Your task to perform on an android device: Play the last video I watched on Youtube Image 0: 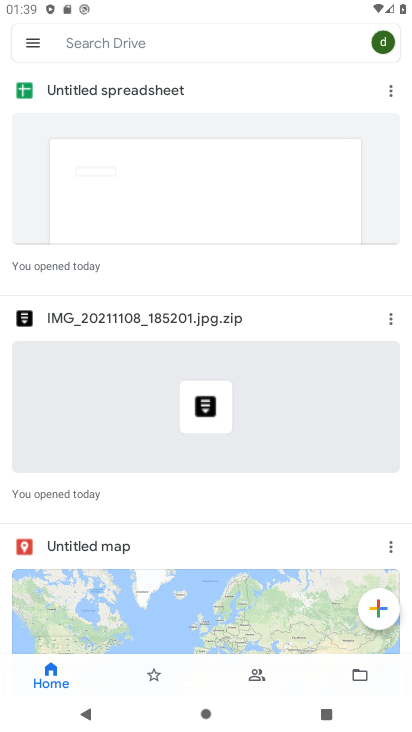
Step 0: press home button
Your task to perform on an android device: Play the last video I watched on Youtube Image 1: 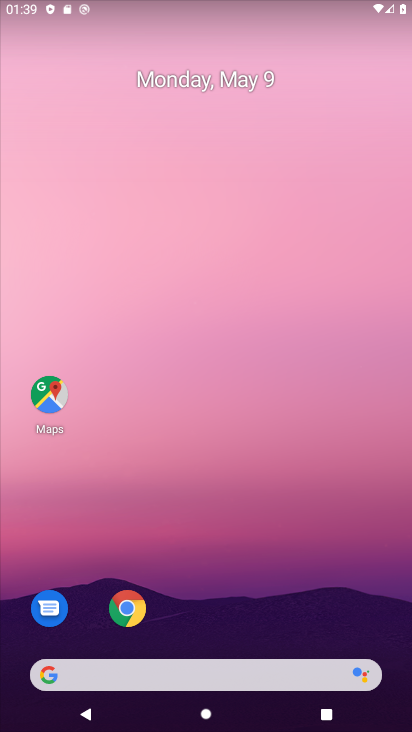
Step 1: drag from (238, 579) to (239, 26)
Your task to perform on an android device: Play the last video I watched on Youtube Image 2: 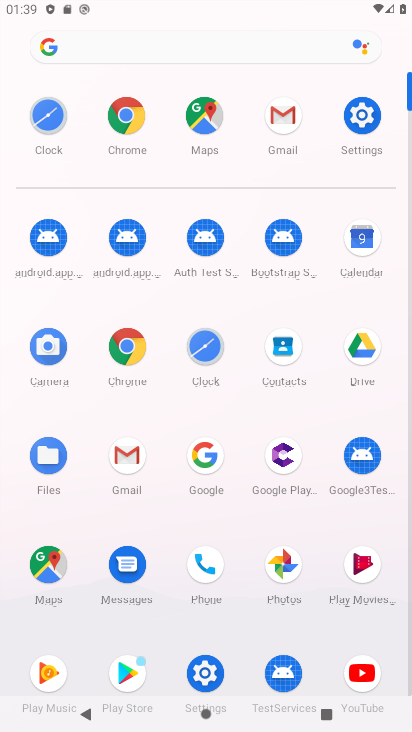
Step 2: click (345, 657)
Your task to perform on an android device: Play the last video I watched on Youtube Image 3: 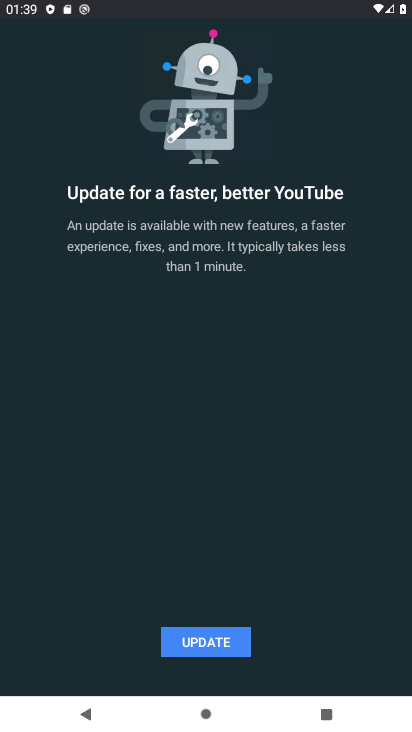
Step 3: click (170, 644)
Your task to perform on an android device: Play the last video I watched on Youtube Image 4: 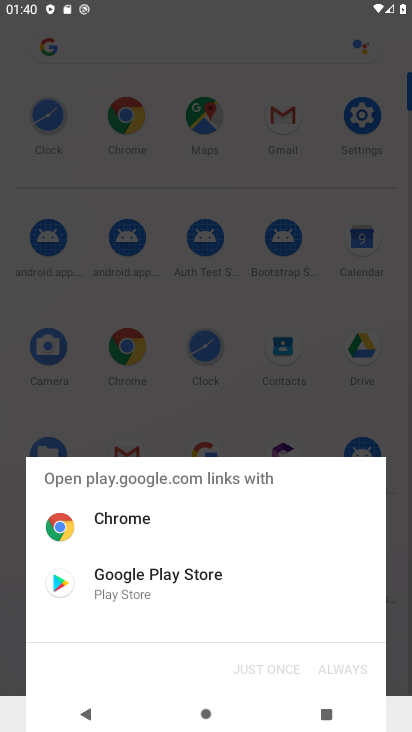
Step 4: click (219, 581)
Your task to perform on an android device: Play the last video I watched on Youtube Image 5: 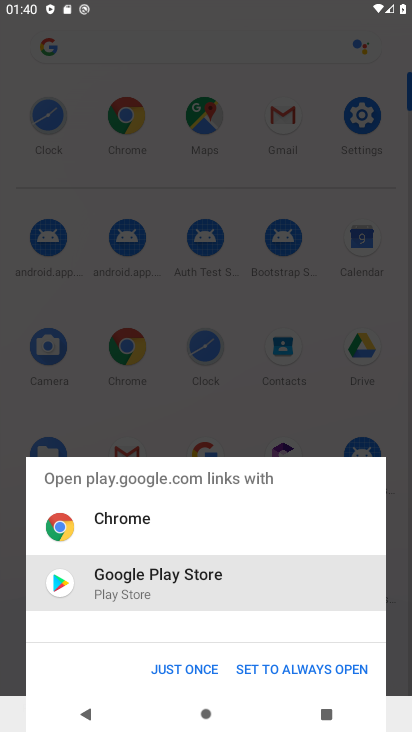
Step 5: click (207, 676)
Your task to perform on an android device: Play the last video I watched on Youtube Image 6: 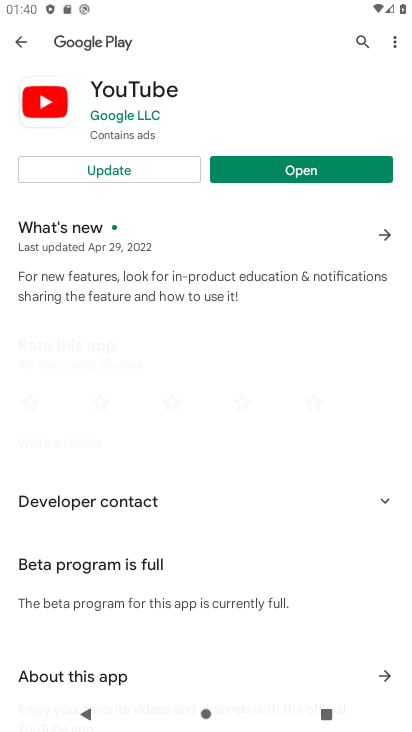
Step 6: click (139, 170)
Your task to perform on an android device: Play the last video I watched on Youtube Image 7: 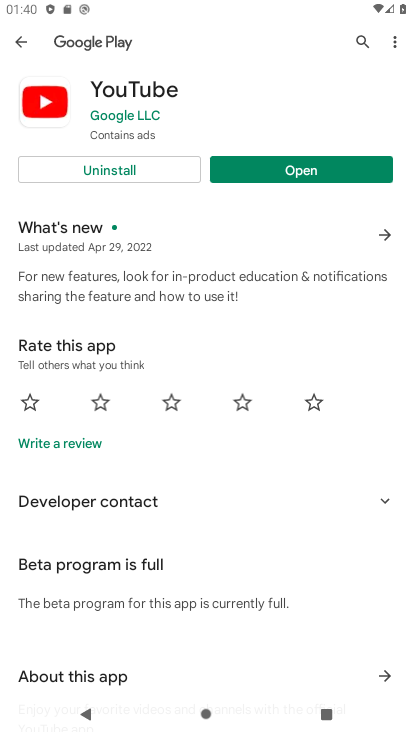
Step 7: click (319, 155)
Your task to perform on an android device: Play the last video I watched on Youtube Image 8: 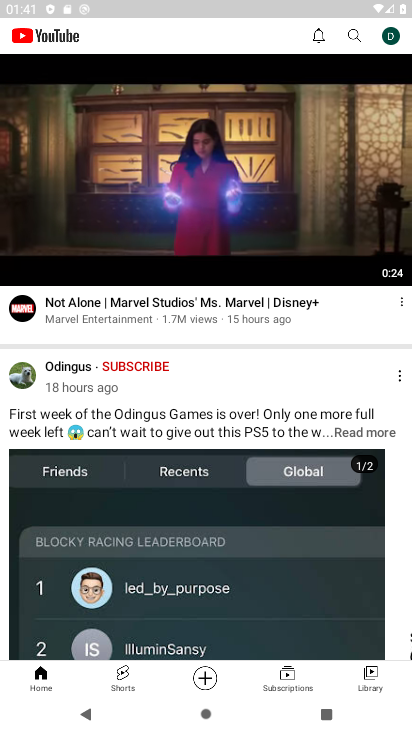
Step 8: click (363, 683)
Your task to perform on an android device: Play the last video I watched on Youtube Image 9: 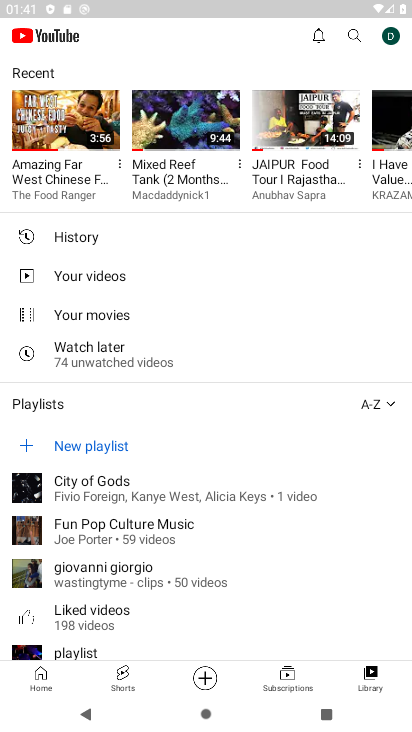
Step 9: click (78, 162)
Your task to perform on an android device: Play the last video I watched on Youtube Image 10: 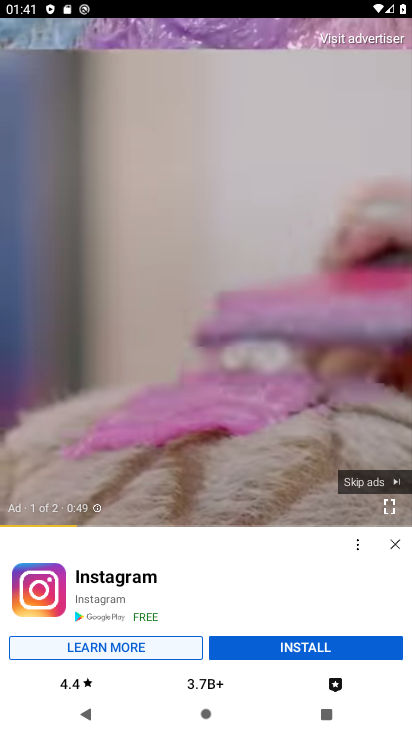
Step 10: task complete